Your task to perform on an android device: see creations saved in the google photos Image 0: 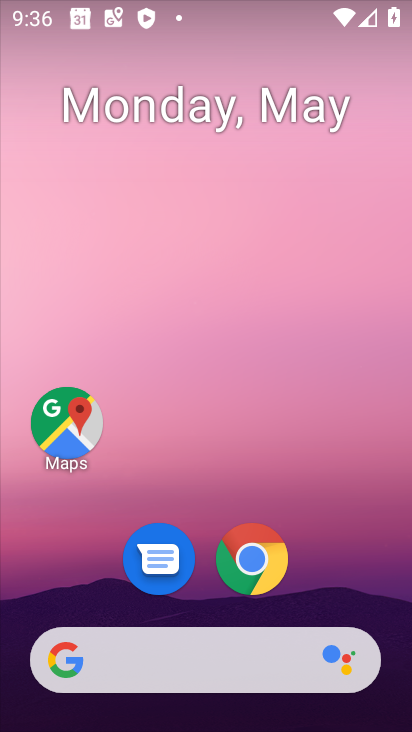
Step 0: drag from (348, 550) to (221, 62)
Your task to perform on an android device: see creations saved in the google photos Image 1: 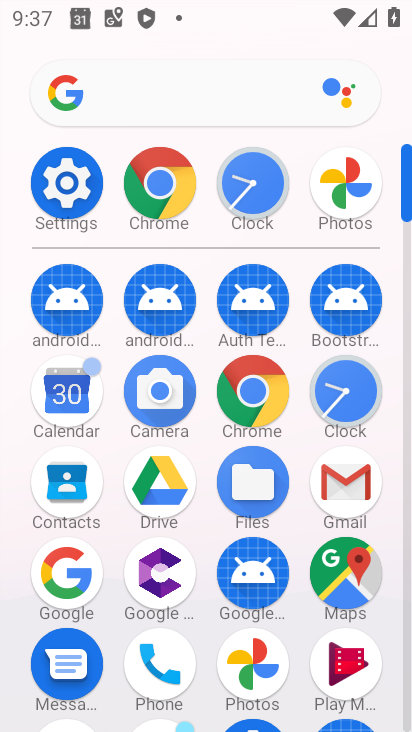
Step 1: click (364, 204)
Your task to perform on an android device: see creations saved in the google photos Image 2: 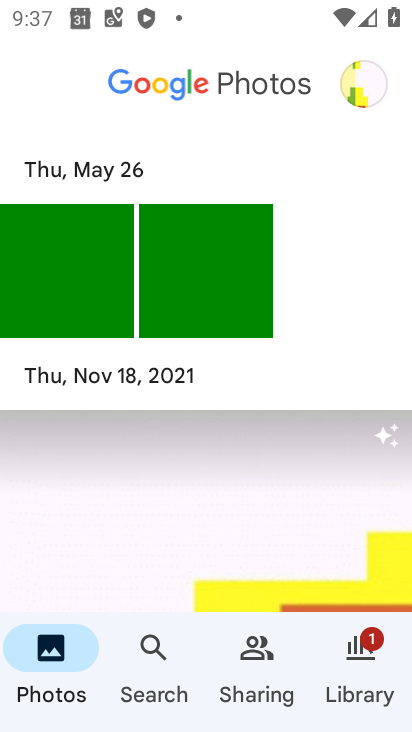
Step 2: click (147, 640)
Your task to perform on an android device: see creations saved in the google photos Image 3: 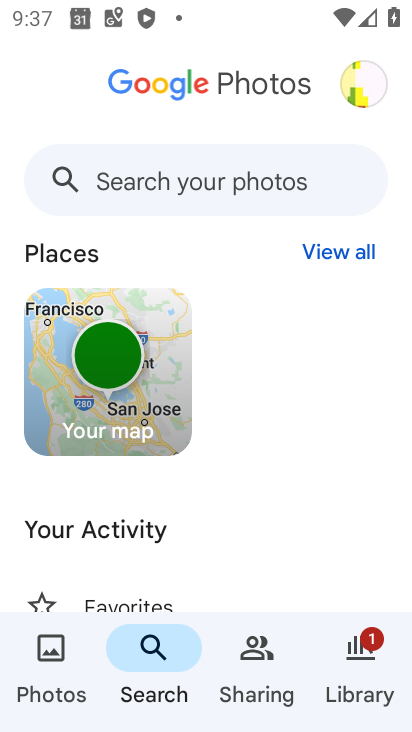
Step 3: click (176, 185)
Your task to perform on an android device: see creations saved in the google photos Image 4: 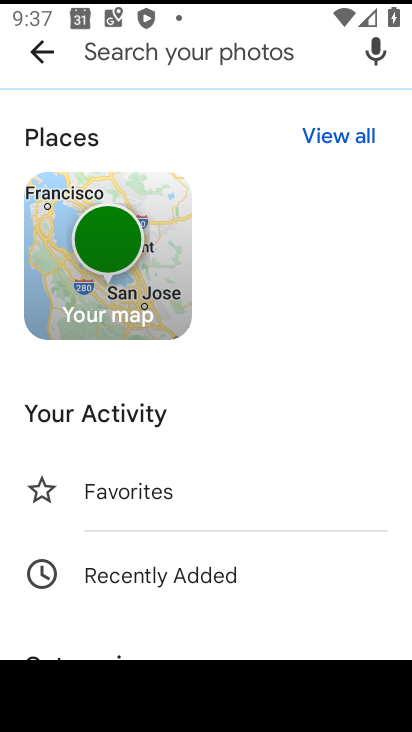
Step 4: type "creations"
Your task to perform on an android device: see creations saved in the google photos Image 5: 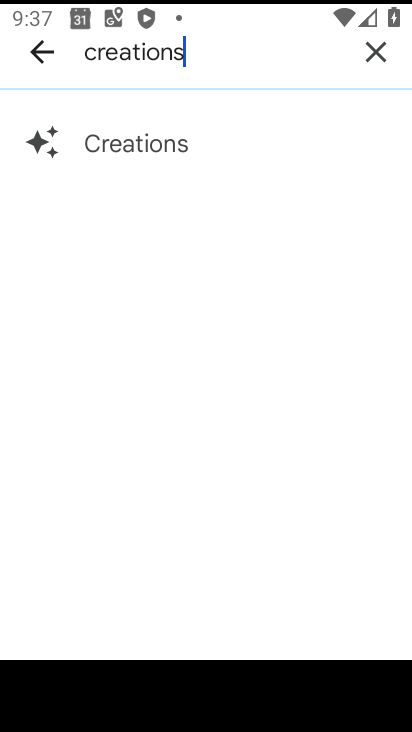
Step 5: click (162, 138)
Your task to perform on an android device: see creations saved in the google photos Image 6: 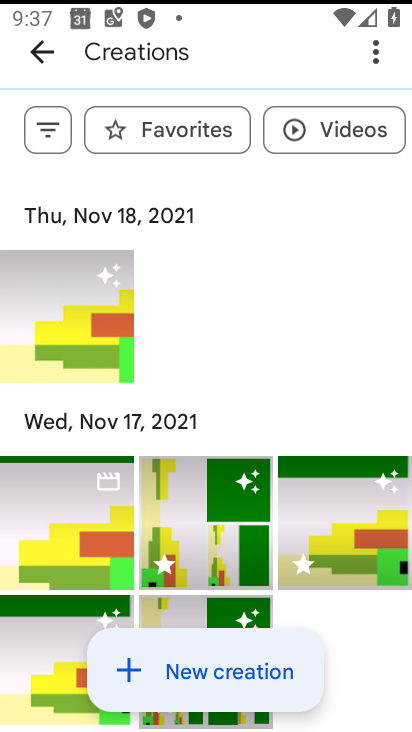
Step 6: task complete